Your task to perform on an android device: Show the shopping cart on walmart. Add razer kraken to the cart on walmart Image 0: 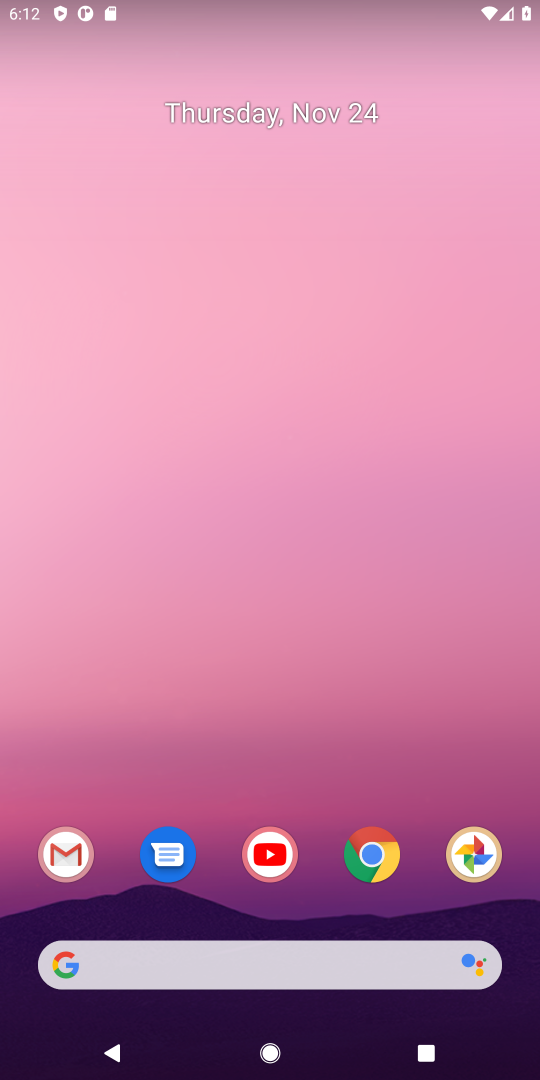
Step 0: click (373, 863)
Your task to perform on an android device: Show the shopping cart on walmart. Add razer kraken to the cart on walmart Image 1: 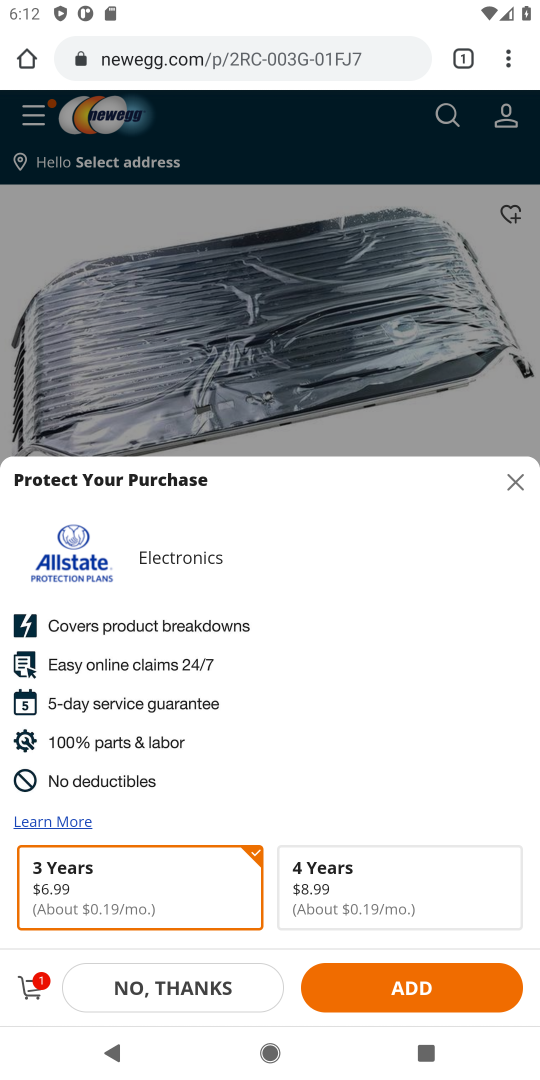
Step 1: click (180, 68)
Your task to perform on an android device: Show the shopping cart on walmart. Add razer kraken to the cart on walmart Image 2: 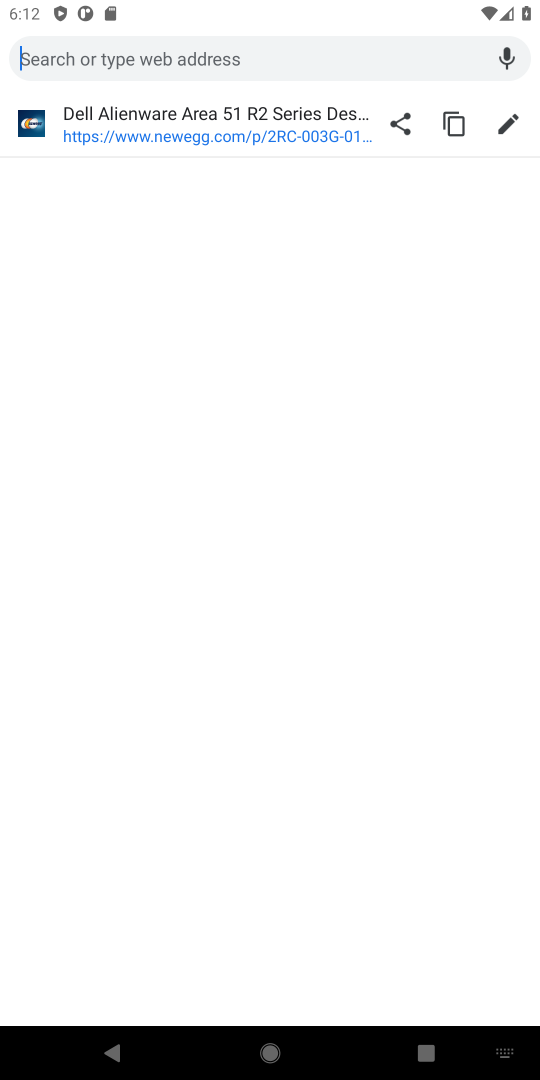
Step 2: type "walmart.com"
Your task to perform on an android device: Show the shopping cart on walmart. Add razer kraken to the cart on walmart Image 3: 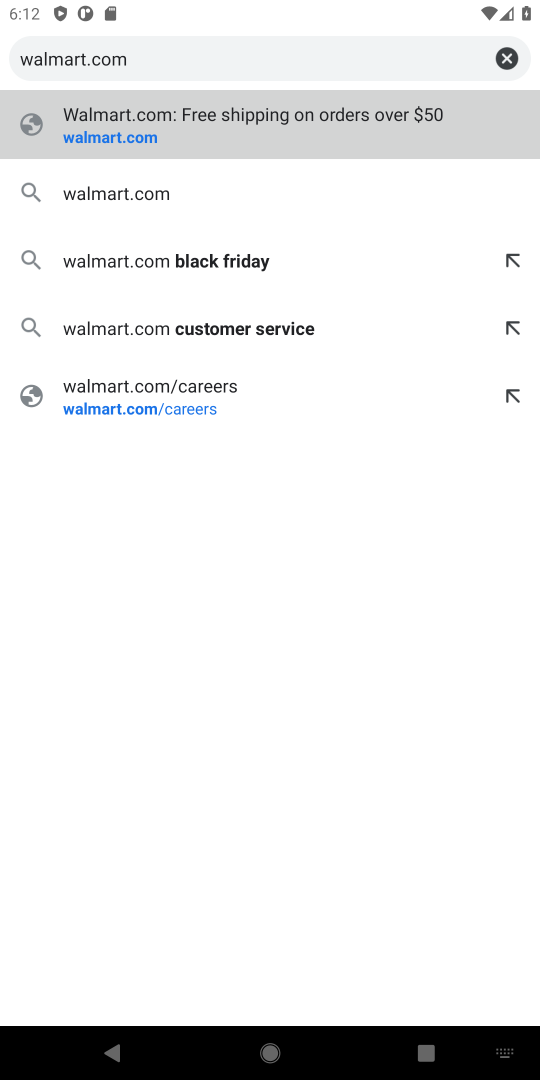
Step 3: click (99, 138)
Your task to perform on an android device: Show the shopping cart on walmart. Add razer kraken to the cart on walmart Image 4: 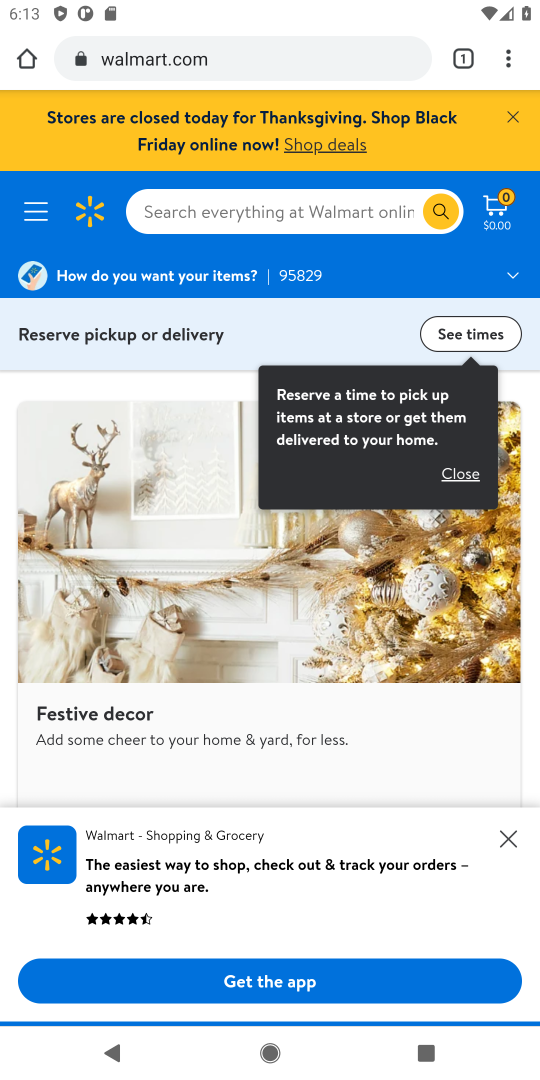
Step 4: click (499, 206)
Your task to perform on an android device: Show the shopping cart on walmart. Add razer kraken to the cart on walmart Image 5: 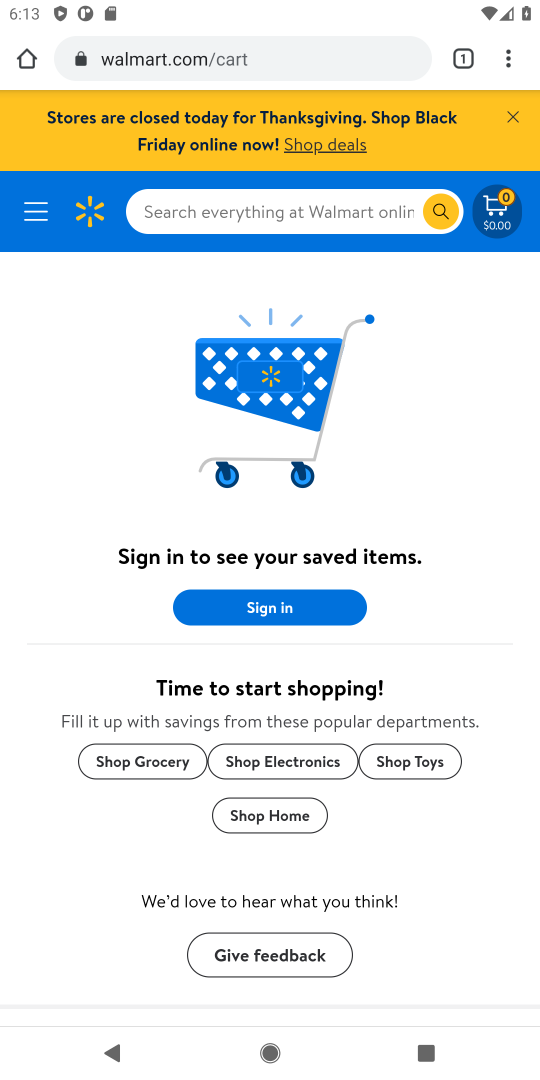
Step 5: click (208, 225)
Your task to perform on an android device: Show the shopping cart on walmart. Add razer kraken to the cart on walmart Image 6: 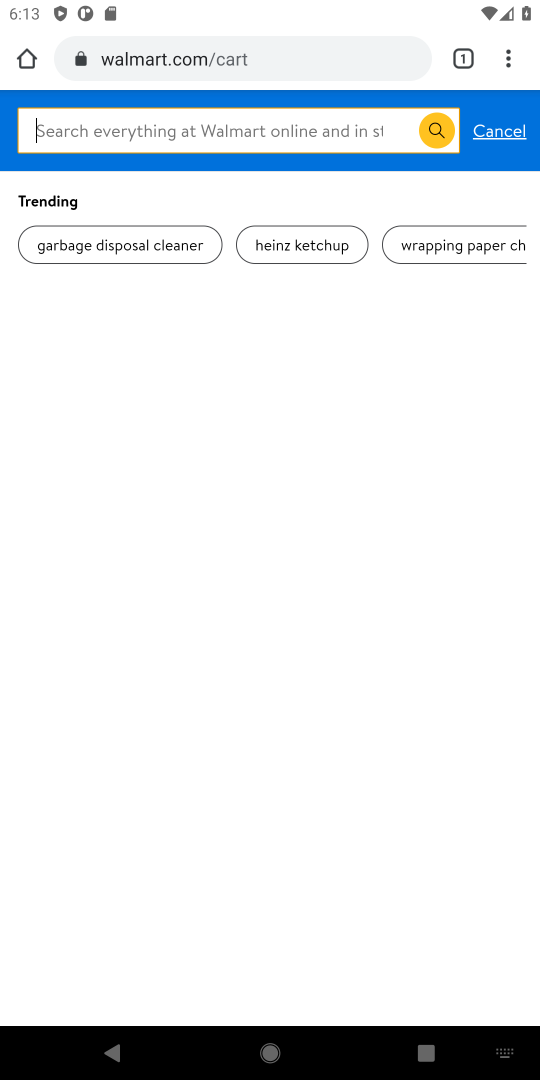
Step 6: type "razer kraken"
Your task to perform on an android device: Show the shopping cart on walmart. Add razer kraken to the cart on walmart Image 7: 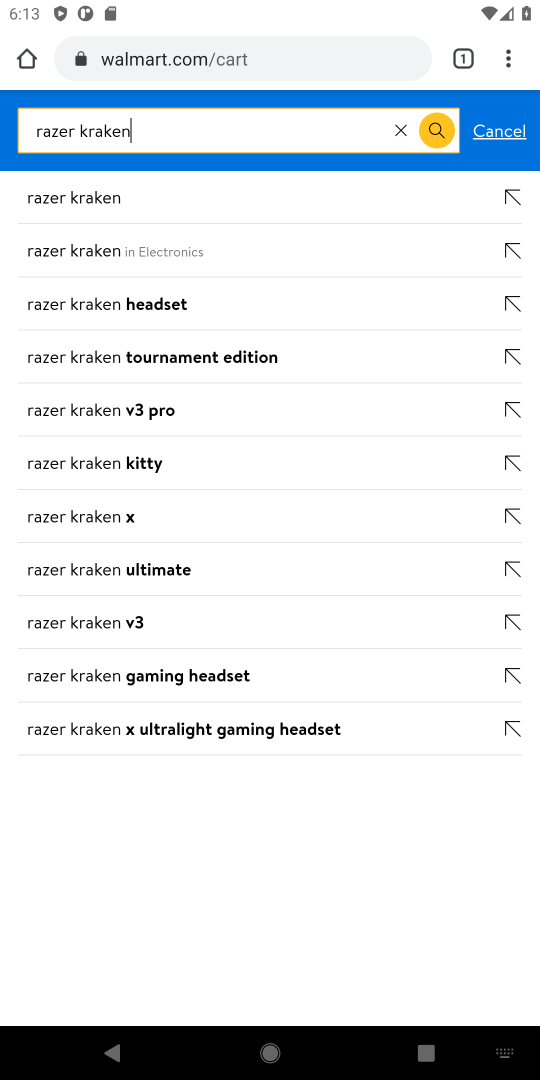
Step 7: click (60, 197)
Your task to perform on an android device: Show the shopping cart on walmart. Add razer kraken to the cart on walmart Image 8: 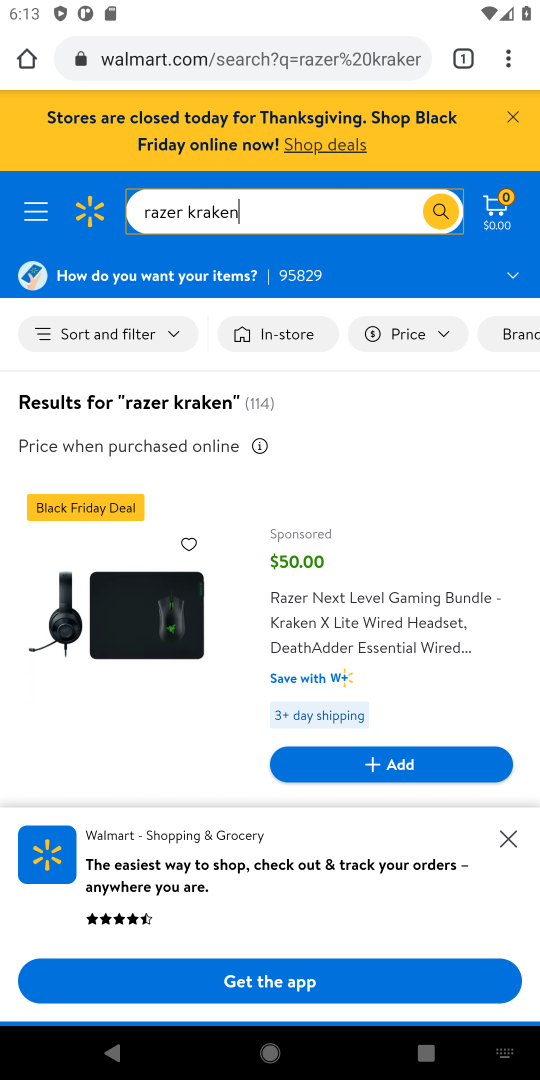
Step 8: drag from (151, 555) to (146, 257)
Your task to perform on an android device: Show the shopping cart on walmart. Add razer kraken to the cart on walmart Image 9: 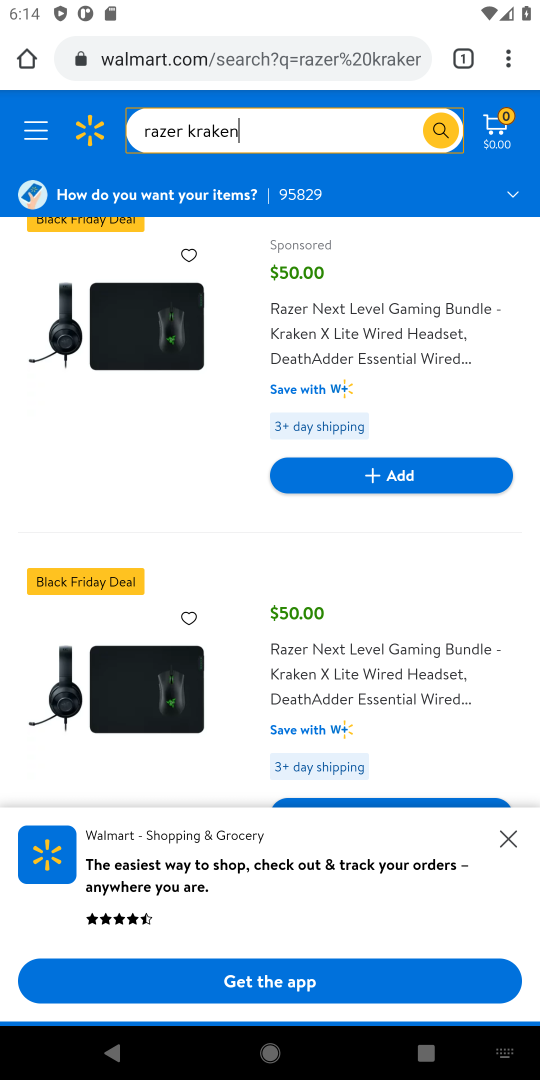
Step 9: click (357, 479)
Your task to perform on an android device: Show the shopping cart on walmart. Add razer kraken to the cart on walmart Image 10: 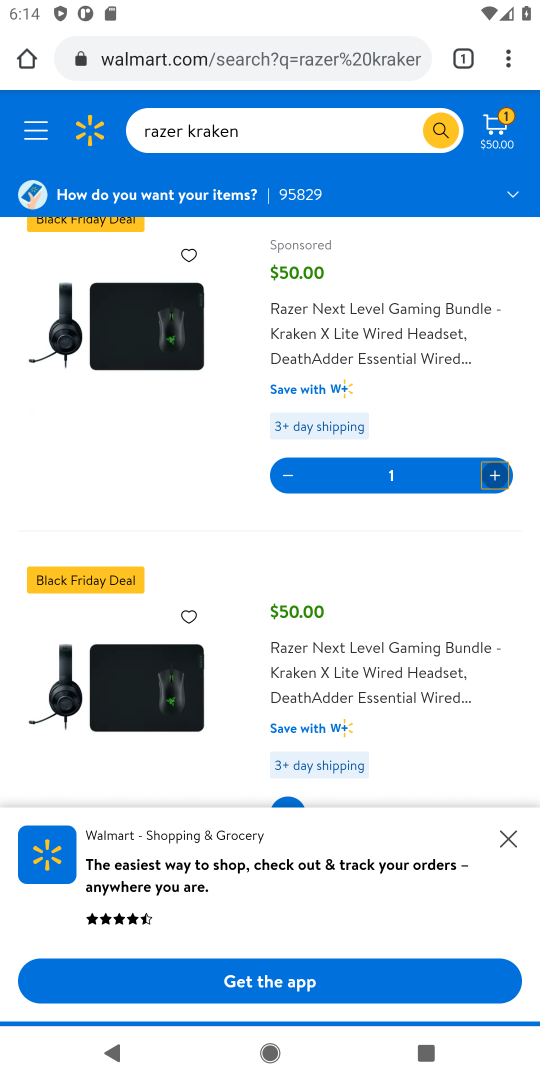
Step 10: task complete